Your task to perform on an android device: turn notification dots on Image 0: 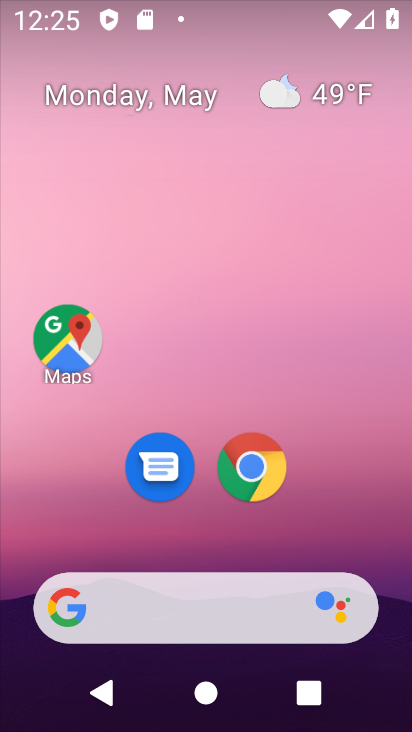
Step 0: click (354, 161)
Your task to perform on an android device: turn notification dots on Image 1: 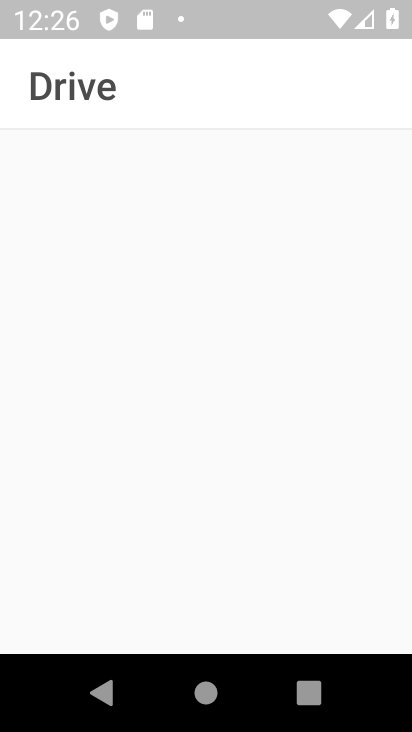
Step 1: press home button
Your task to perform on an android device: turn notification dots on Image 2: 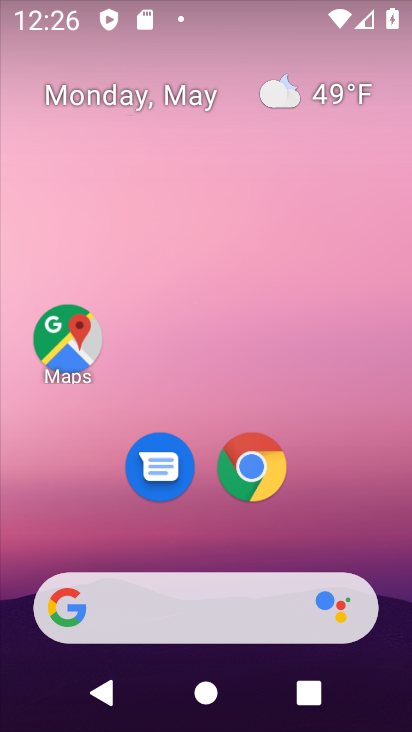
Step 2: drag from (361, 554) to (333, 207)
Your task to perform on an android device: turn notification dots on Image 3: 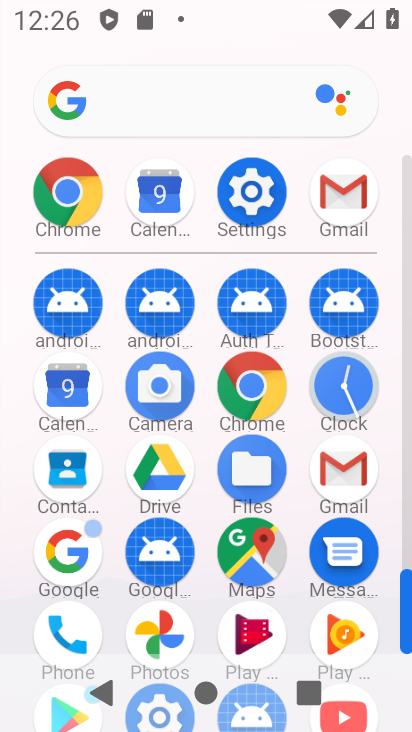
Step 3: click (274, 203)
Your task to perform on an android device: turn notification dots on Image 4: 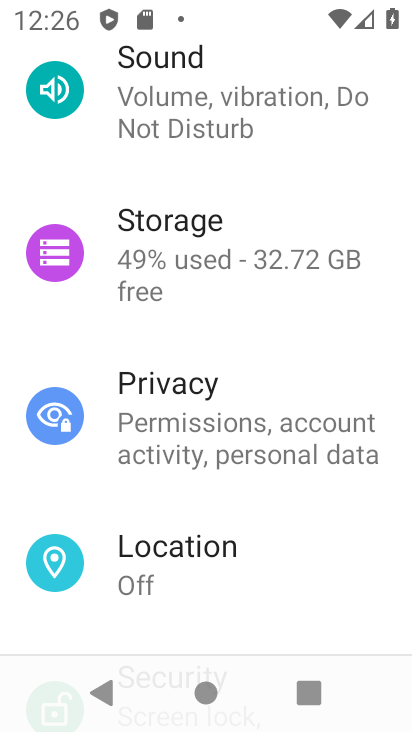
Step 4: drag from (307, 604) to (303, 197)
Your task to perform on an android device: turn notification dots on Image 5: 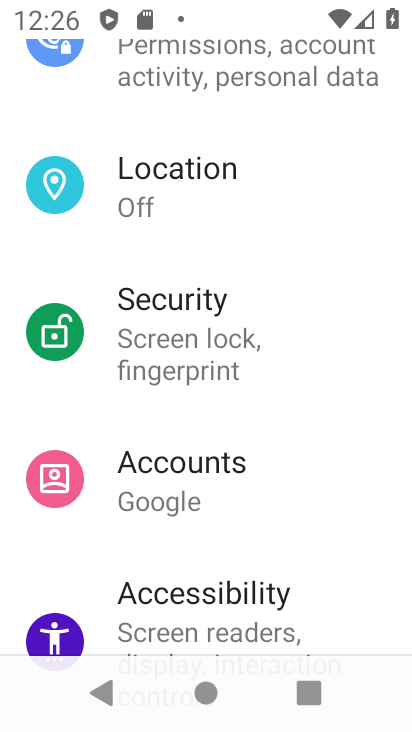
Step 5: drag from (296, 515) to (284, 192)
Your task to perform on an android device: turn notification dots on Image 6: 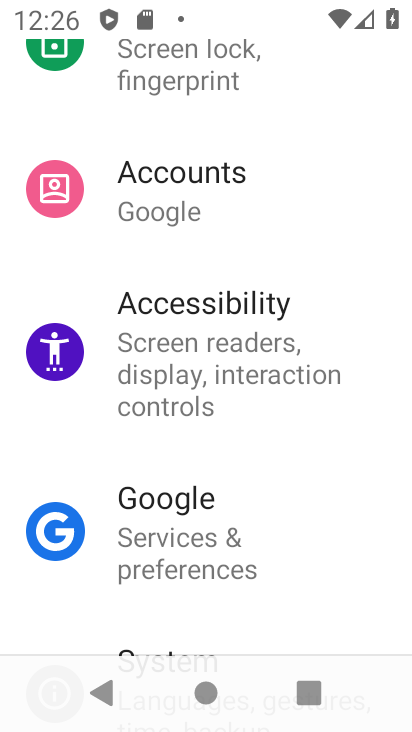
Step 6: drag from (284, 194) to (292, 581)
Your task to perform on an android device: turn notification dots on Image 7: 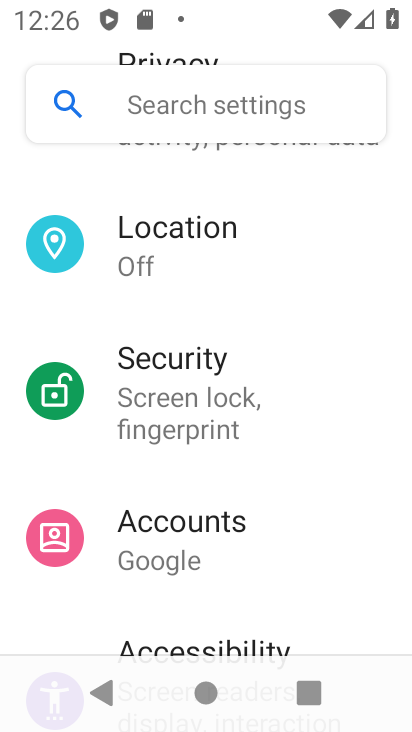
Step 7: drag from (277, 217) to (345, 620)
Your task to perform on an android device: turn notification dots on Image 8: 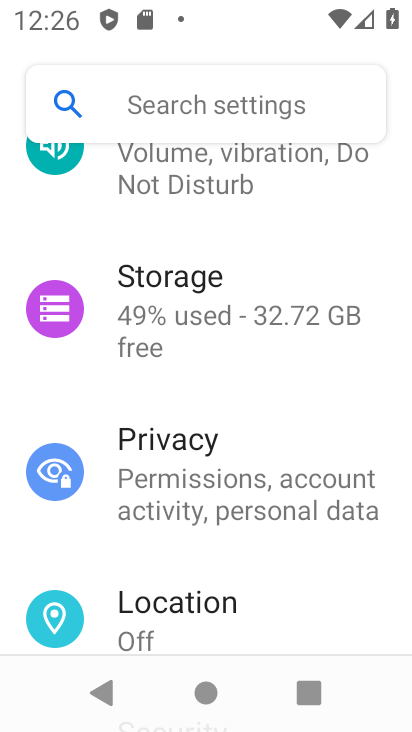
Step 8: drag from (345, 213) to (293, 570)
Your task to perform on an android device: turn notification dots on Image 9: 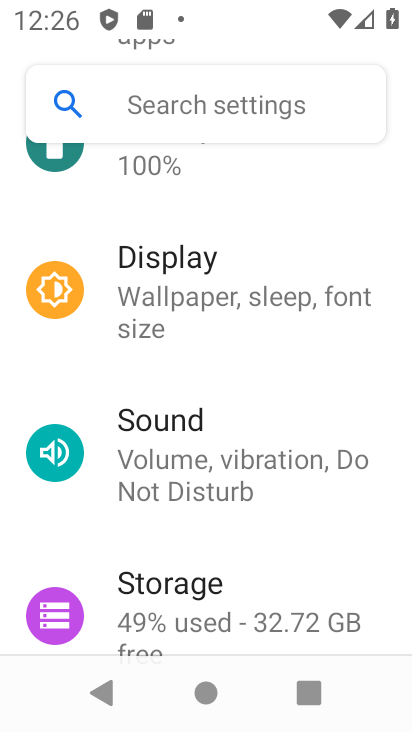
Step 9: drag from (286, 489) to (291, 548)
Your task to perform on an android device: turn notification dots on Image 10: 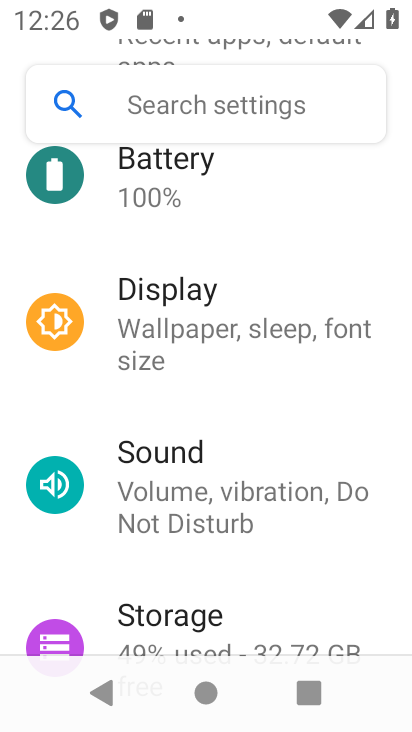
Step 10: drag from (248, 240) to (284, 575)
Your task to perform on an android device: turn notification dots on Image 11: 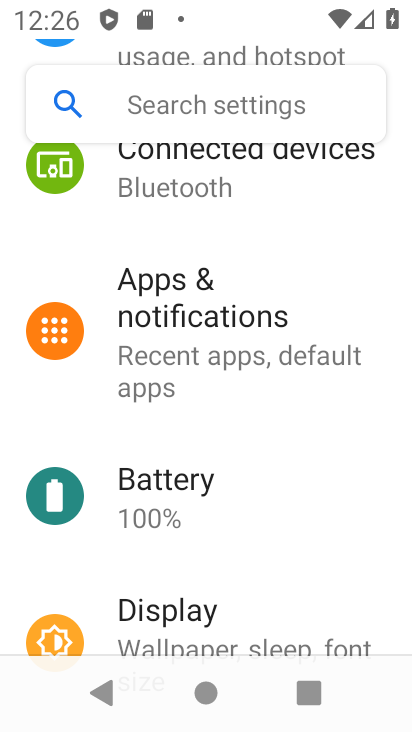
Step 11: click (208, 321)
Your task to perform on an android device: turn notification dots on Image 12: 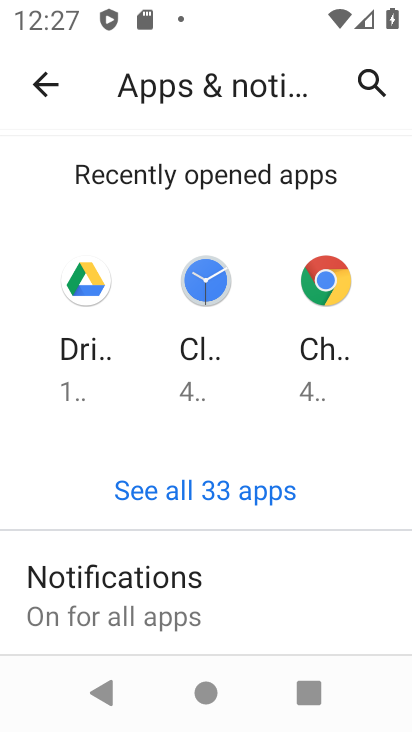
Step 12: drag from (251, 613) to (278, 200)
Your task to perform on an android device: turn notification dots on Image 13: 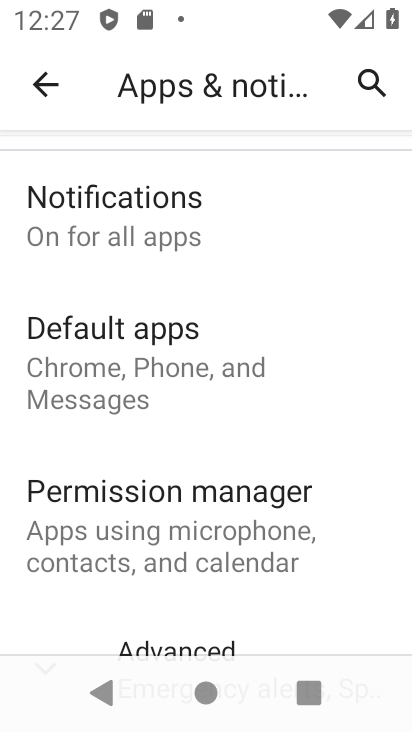
Step 13: drag from (262, 450) to (297, 218)
Your task to perform on an android device: turn notification dots on Image 14: 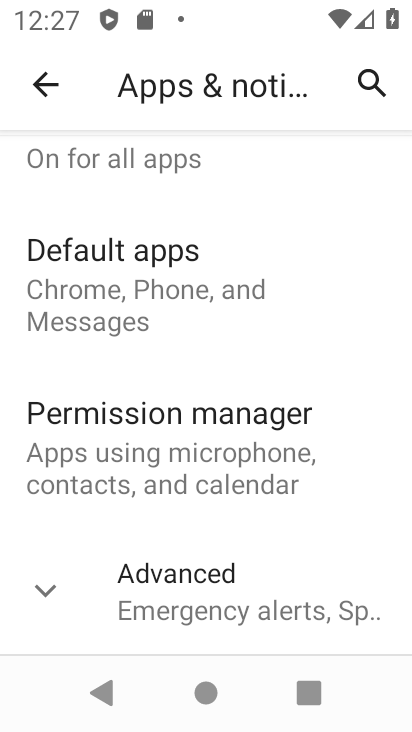
Step 14: click (231, 567)
Your task to perform on an android device: turn notification dots on Image 15: 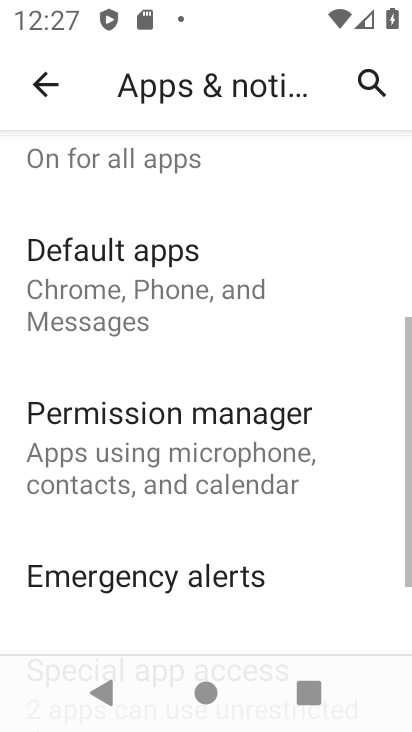
Step 15: drag from (317, 607) to (363, 253)
Your task to perform on an android device: turn notification dots on Image 16: 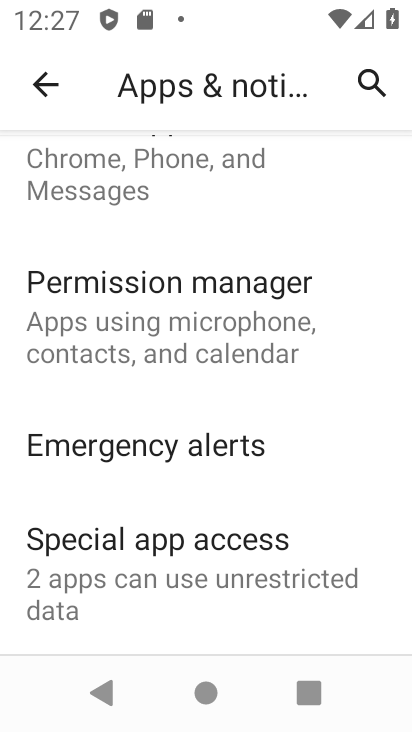
Step 16: drag from (302, 235) to (311, 575)
Your task to perform on an android device: turn notification dots on Image 17: 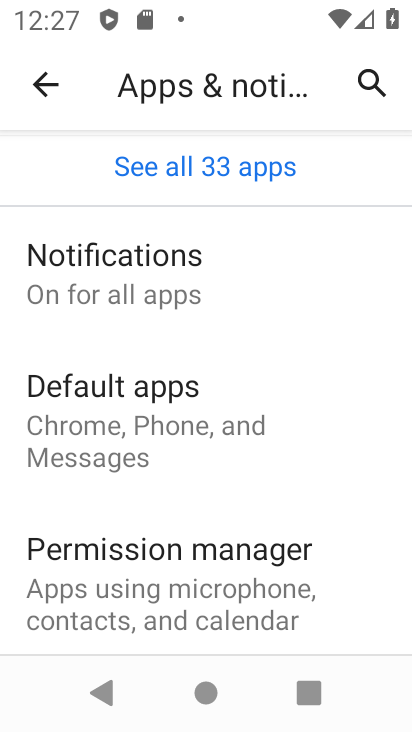
Step 17: click (175, 281)
Your task to perform on an android device: turn notification dots on Image 18: 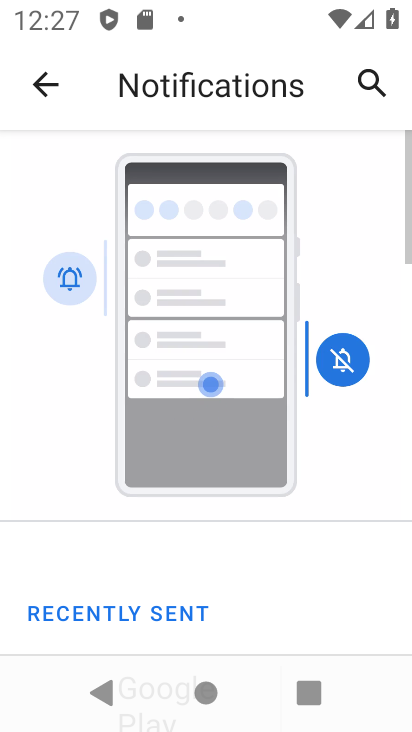
Step 18: drag from (264, 611) to (342, 174)
Your task to perform on an android device: turn notification dots on Image 19: 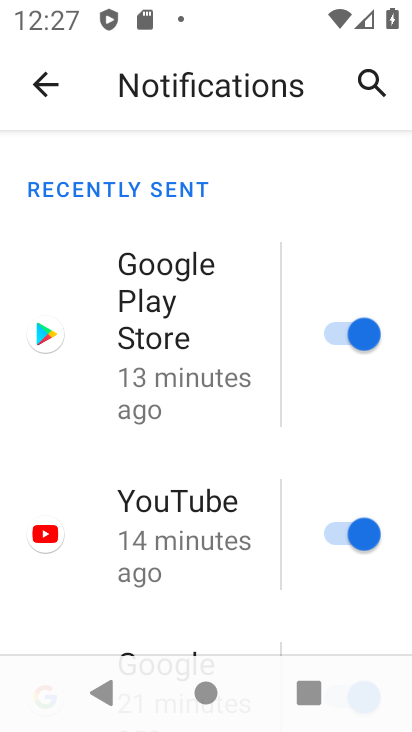
Step 19: drag from (250, 598) to (254, 212)
Your task to perform on an android device: turn notification dots on Image 20: 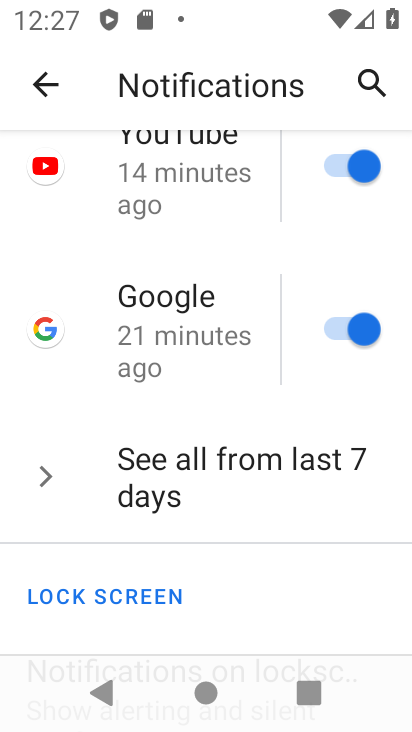
Step 20: drag from (231, 599) to (263, 268)
Your task to perform on an android device: turn notification dots on Image 21: 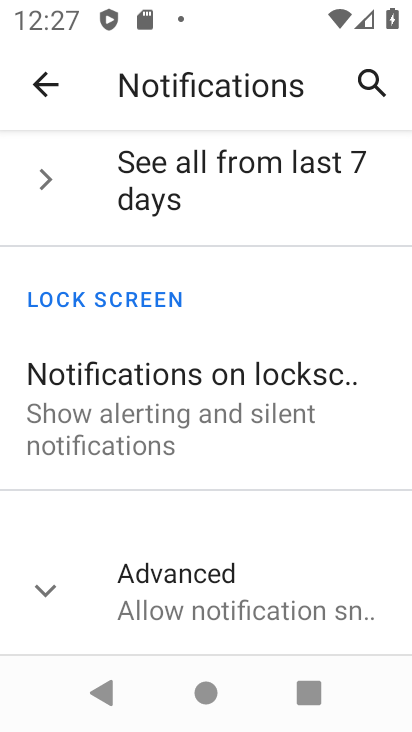
Step 21: drag from (226, 545) to (275, 300)
Your task to perform on an android device: turn notification dots on Image 22: 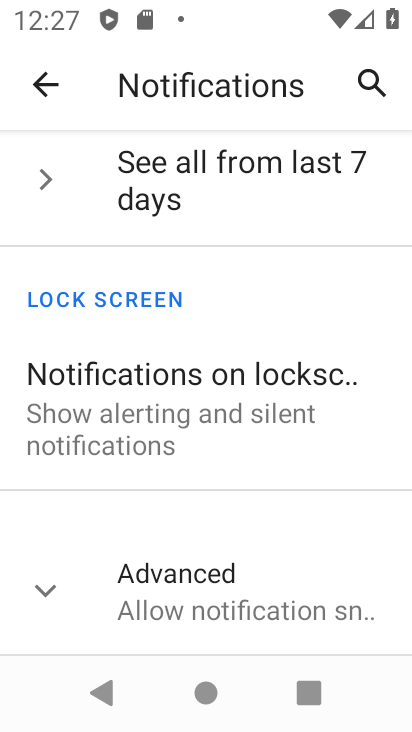
Step 22: click (43, 583)
Your task to perform on an android device: turn notification dots on Image 23: 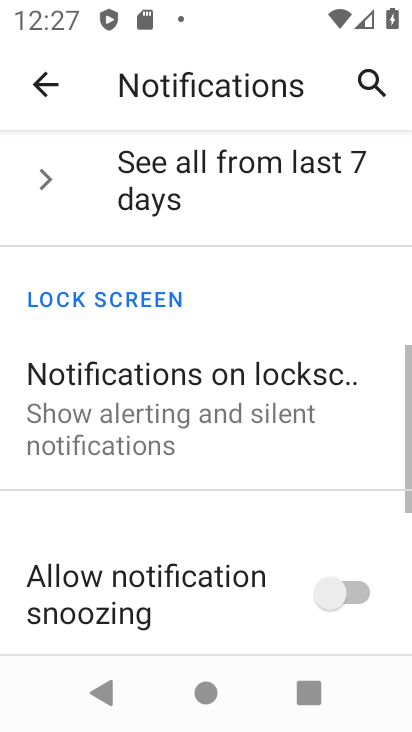
Step 23: task complete